Your task to perform on an android device: What's the weather going to be this weekend? Image 0: 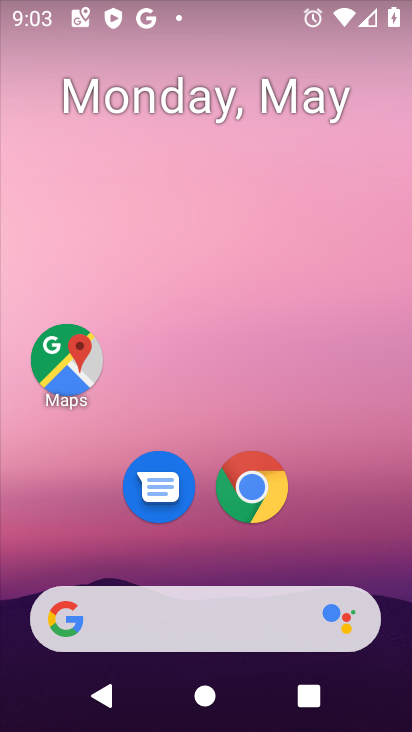
Step 0: click (198, 606)
Your task to perform on an android device: What's the weather going to be this weekend? Image 1: 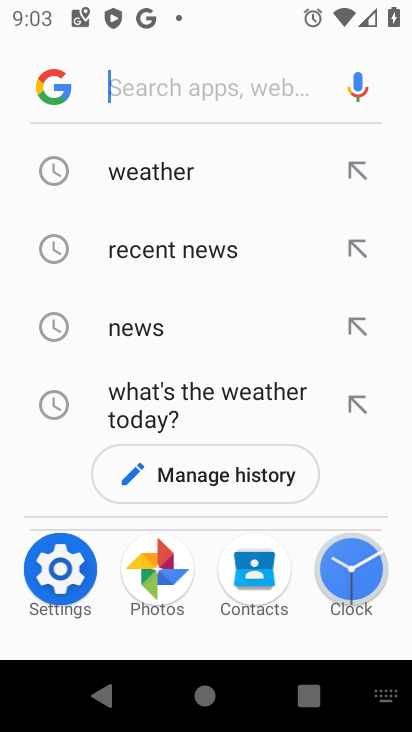
Step 1: click (208, 157)
Your task to perform on an android device: What's the weather going to be this weekend? Image 2: 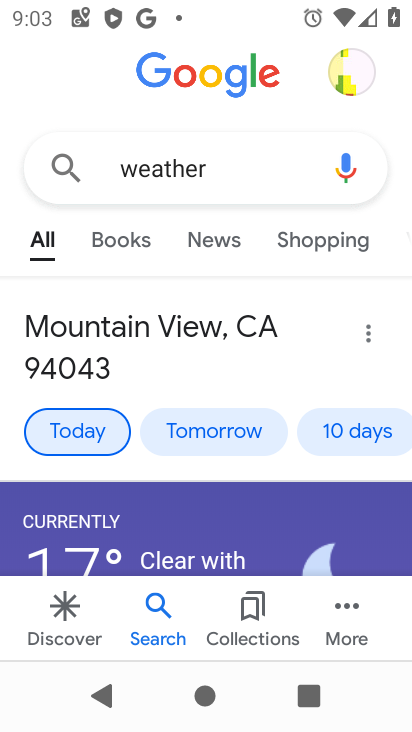
Step 2: click (349, 431)
Your task to perform on an android device: What's the weather going to be this weekend? Image 3: 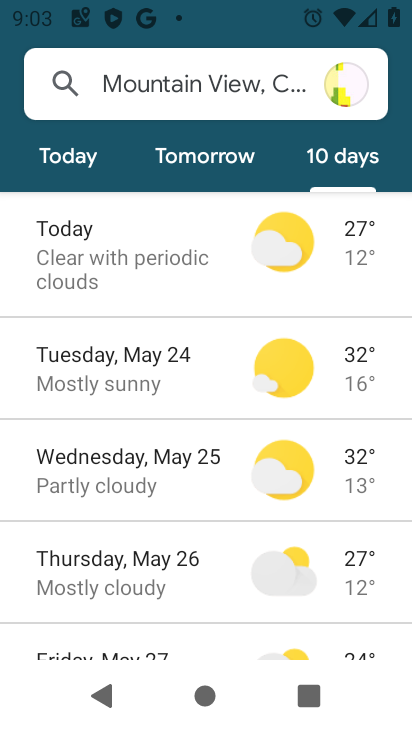
Step 3: task complete